Your task to perform on an android device: Open my contact list Image 0: 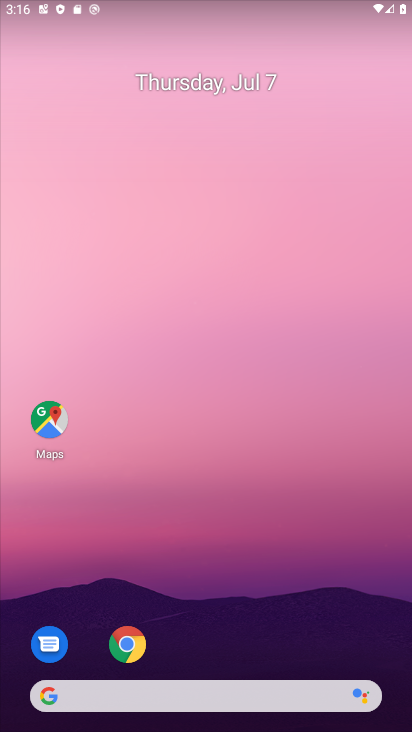
Step 0: drag from (196, 709) to (183, 43)
Your task to perform on an android device: Open my contact list Image 1: 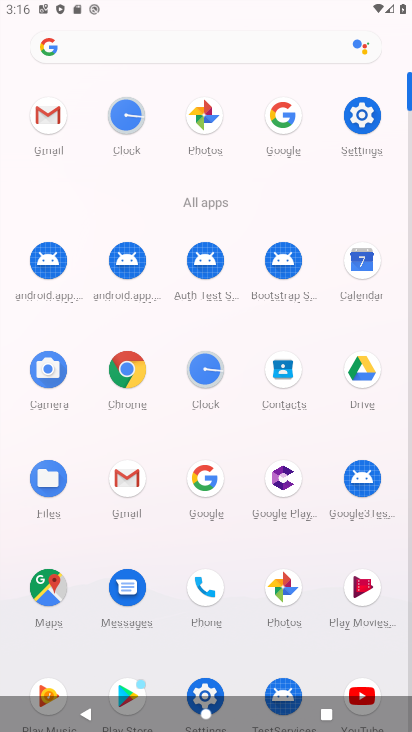
Step 1: click (203, 601)
Your task to perform on an android device: Open my contact list Image 2: 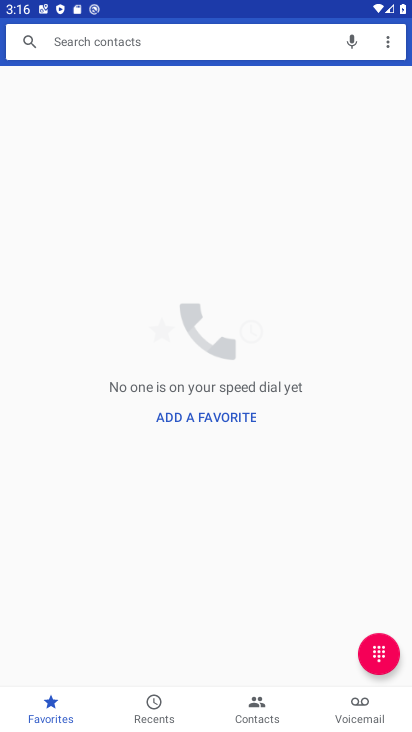
Step 2: click (255, 705)
Your task to perform on an android device: Open my contact list Image 3: 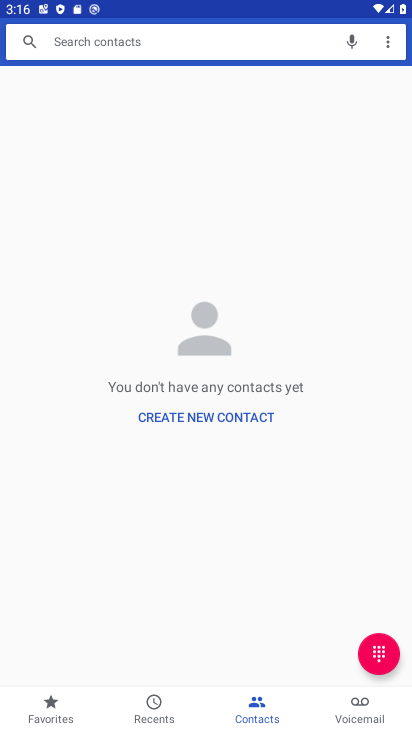
Step 3: task complete